Your task to perform on an android device: What's the latest news in space? Image 0: 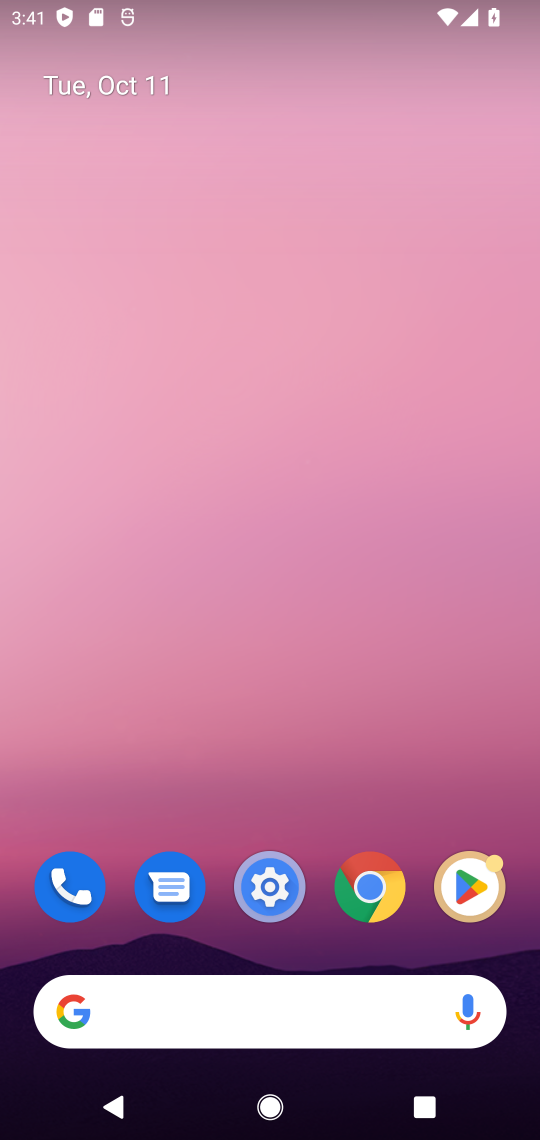
Step 0: click (270, 1006)
Your task to perform on an android device: What's the latest news in space? Image 1: 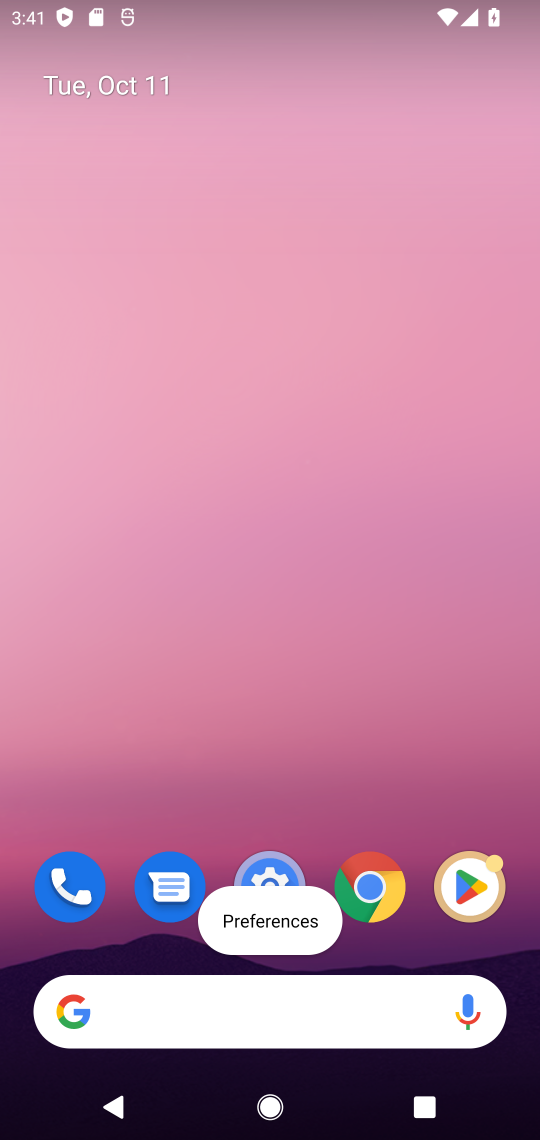
Step 1: click (142, 1012)
Your task to perform on an android device: What's the latest news in space? Image 2: 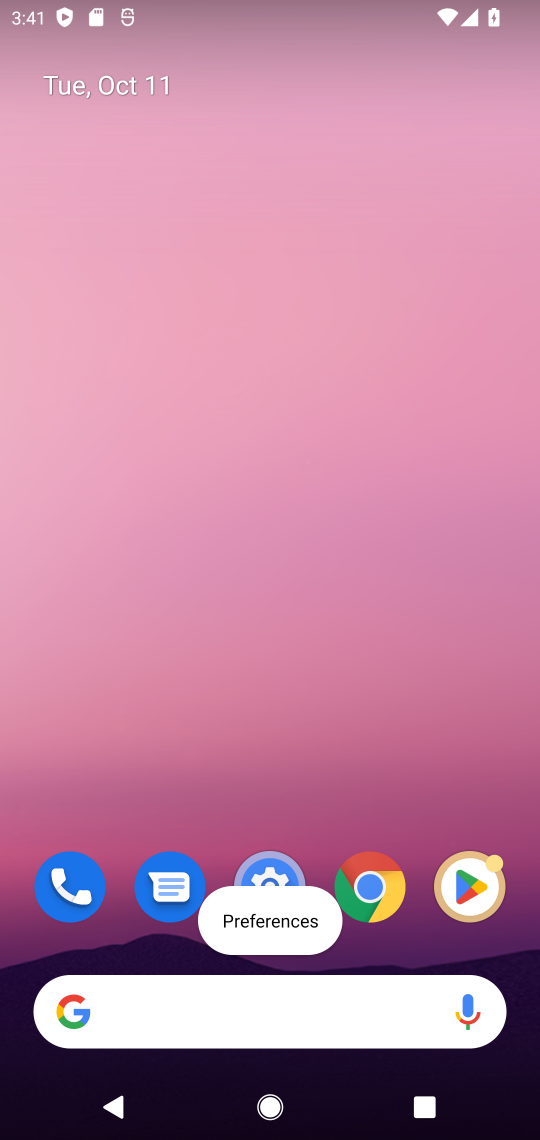
Step 2: click (207, 1002)
Your task to perform on an android device: What's the latest news in space? Image 3: 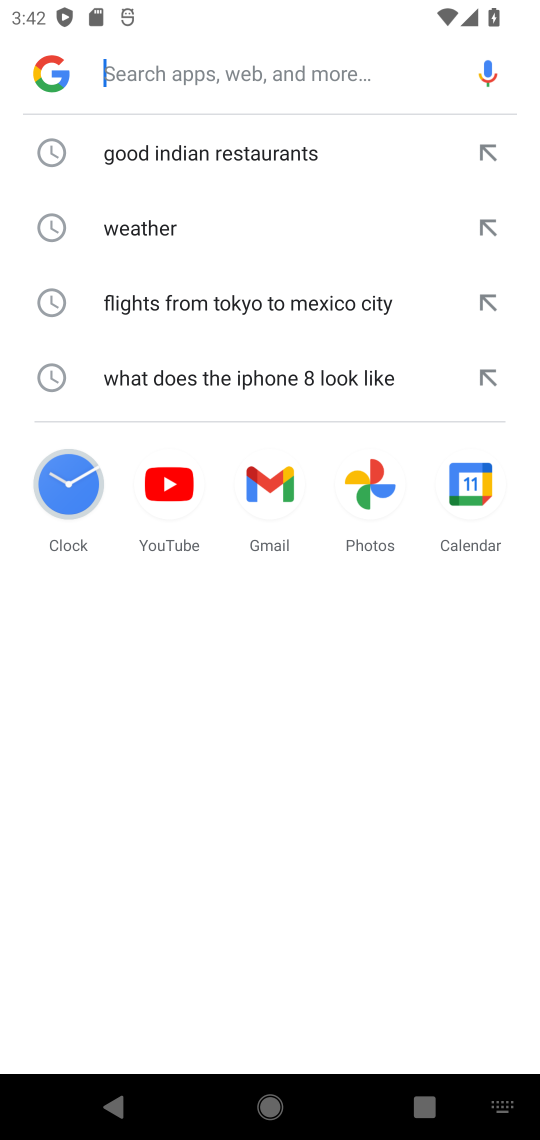
Step 3: click (143, 82)
Your task to perform on an android device: What's the latest news in space? Image 4: 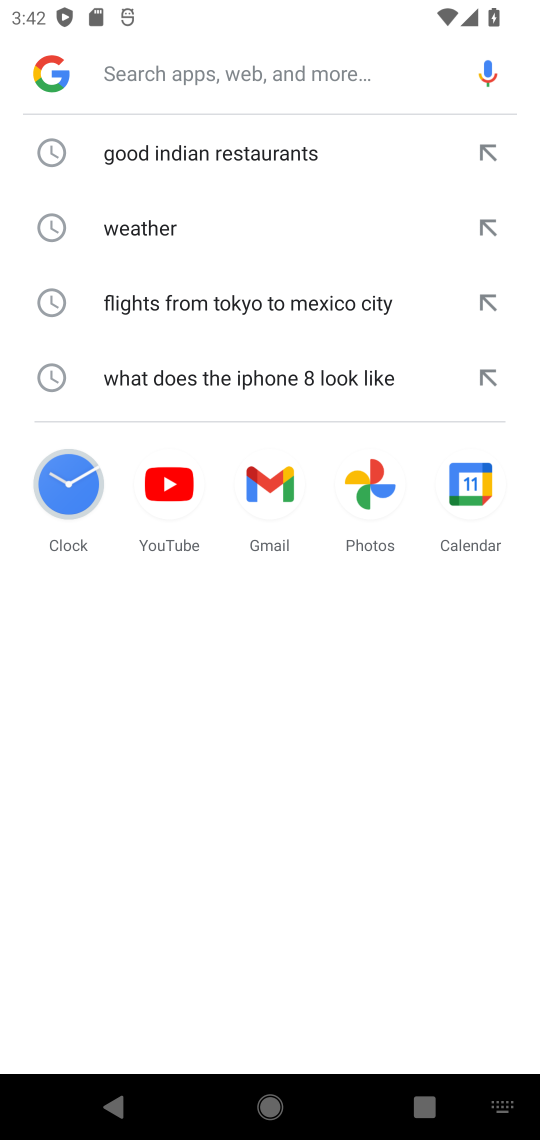
Step 4: type "latest space news"
Your task to perform on an android device: What's the latest news in space? Image 5: 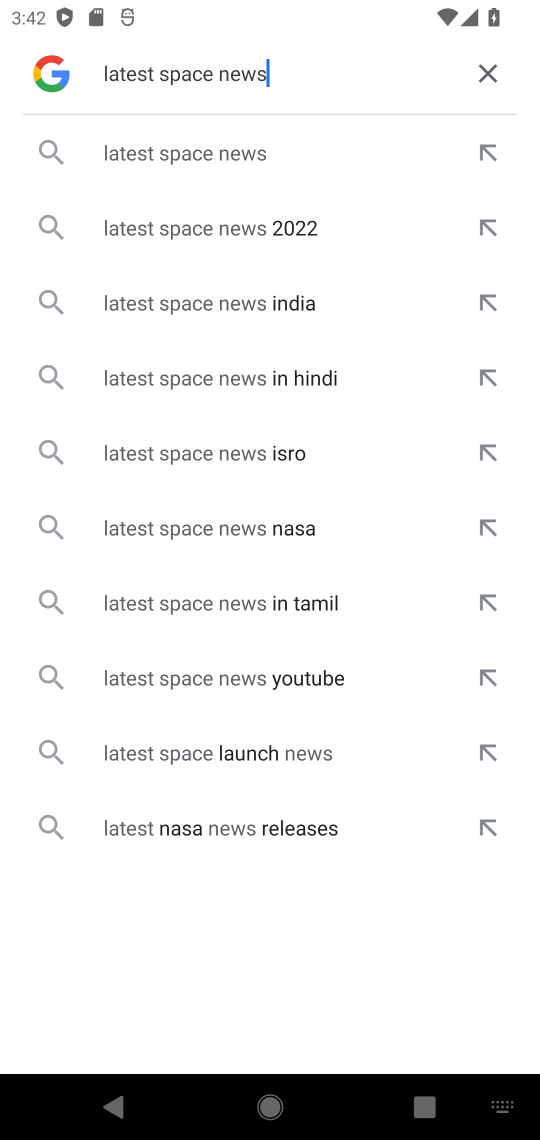
Step 5: click (238, 163)
Your task to perform on an android device: What's the latest news in space? Image 6: 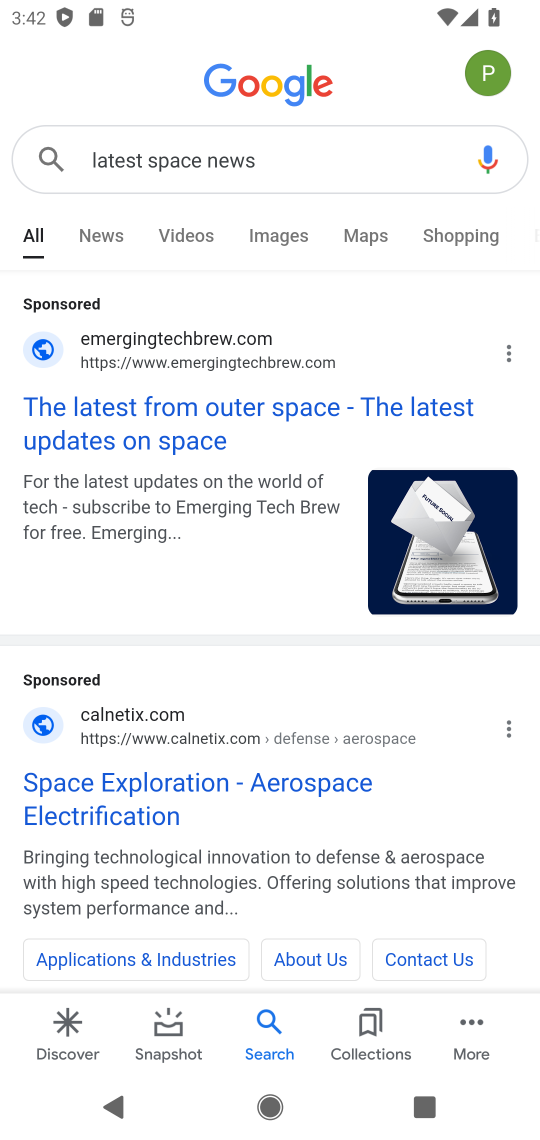
Step 6: click (110, 450)
Your task to perform on an android device: What's the latest news in space? Image 7: 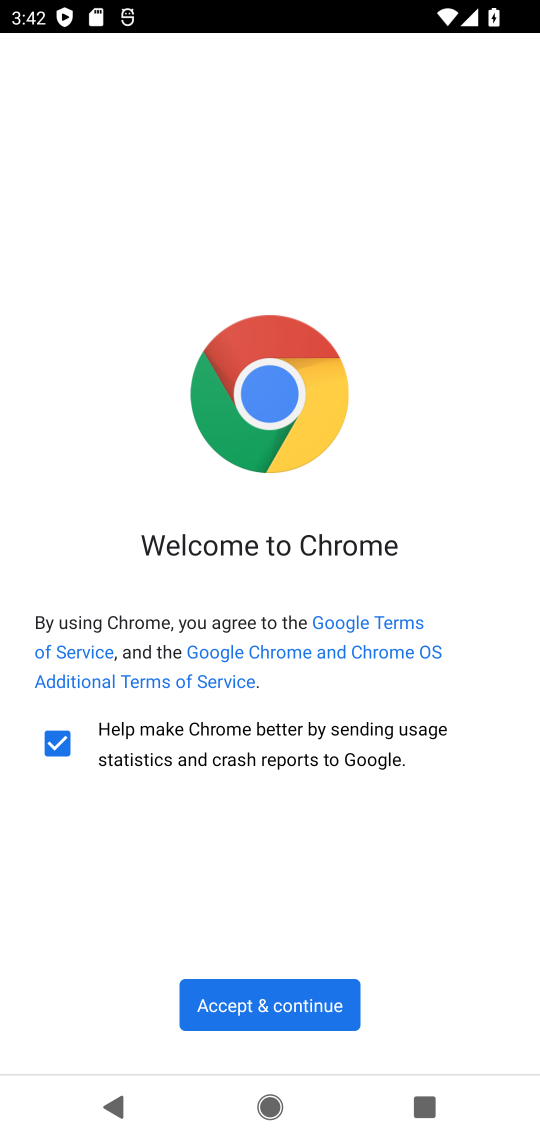
Step 7: click (257, 1011)
Your task to perform on an android device: What's the latest news in space? Image 8: 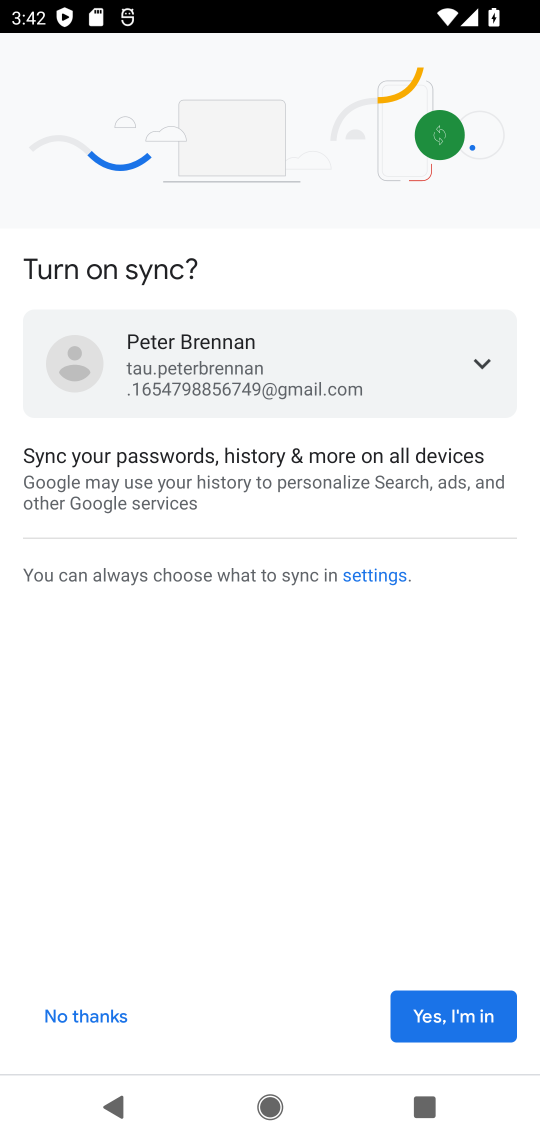
Step 8: click (75, 1014)
Your task to perform on an android device: What's the latest news in space? Image 9: 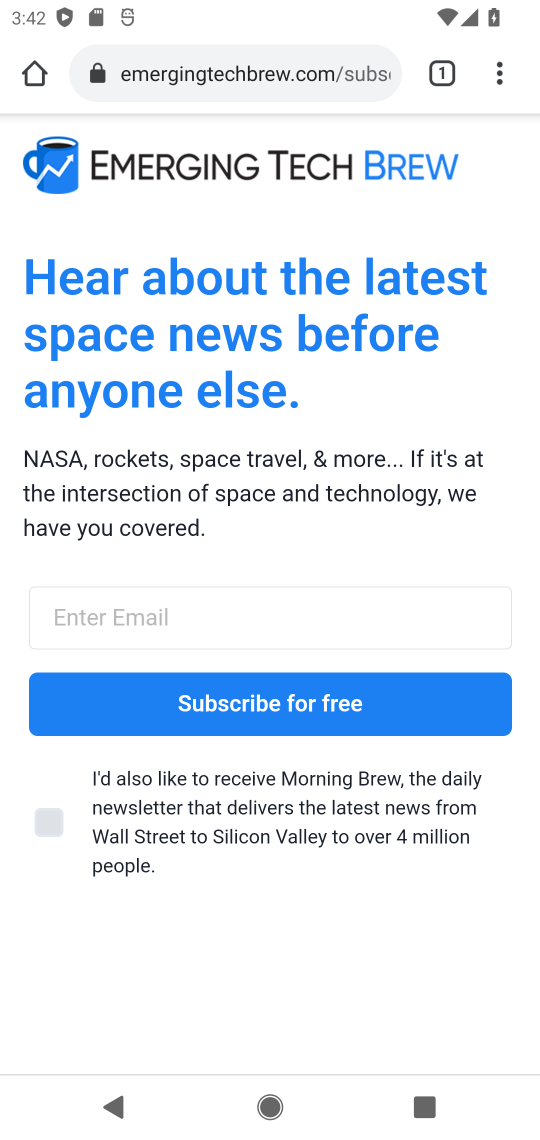
Step 9: drag from (255, 839) to (243, 388)
Your task to perform on an android device: What's the latest news in space? Image 10: 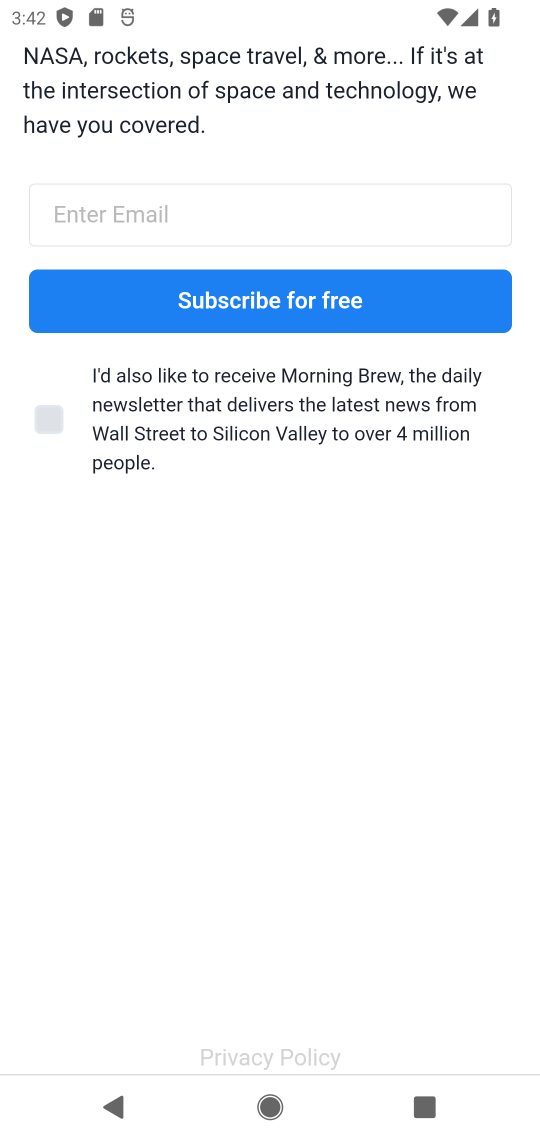
Step 10: drag from (270, 837) to (270, 203)
Your task to perform on an android device: What's the latest news in space? Image 11: 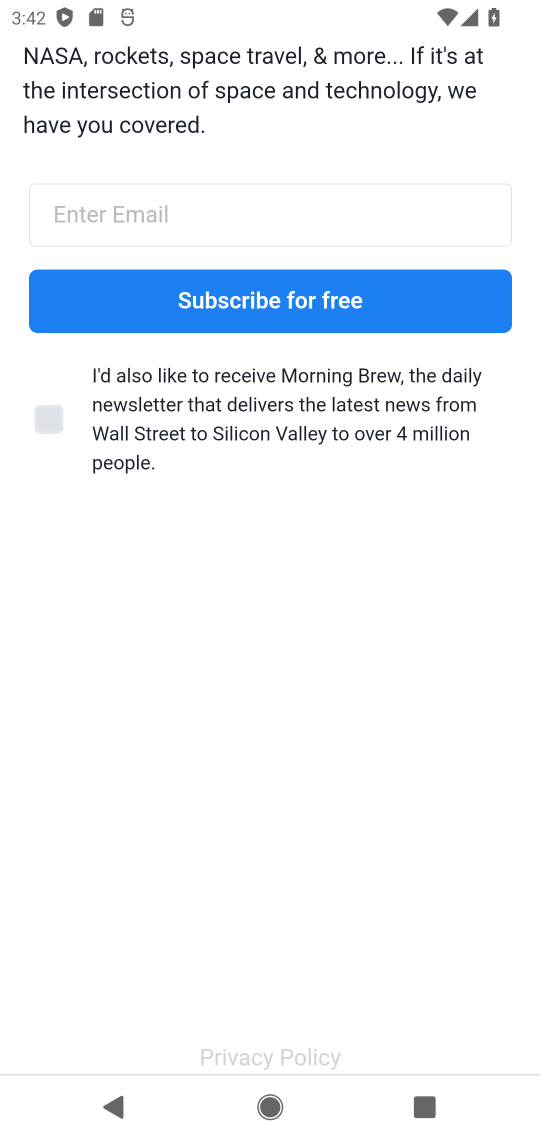
Step 11: drag from (224, 512) to (260, 1043)
Your task to perform on an android device: What's the latest news in space? Image 12: 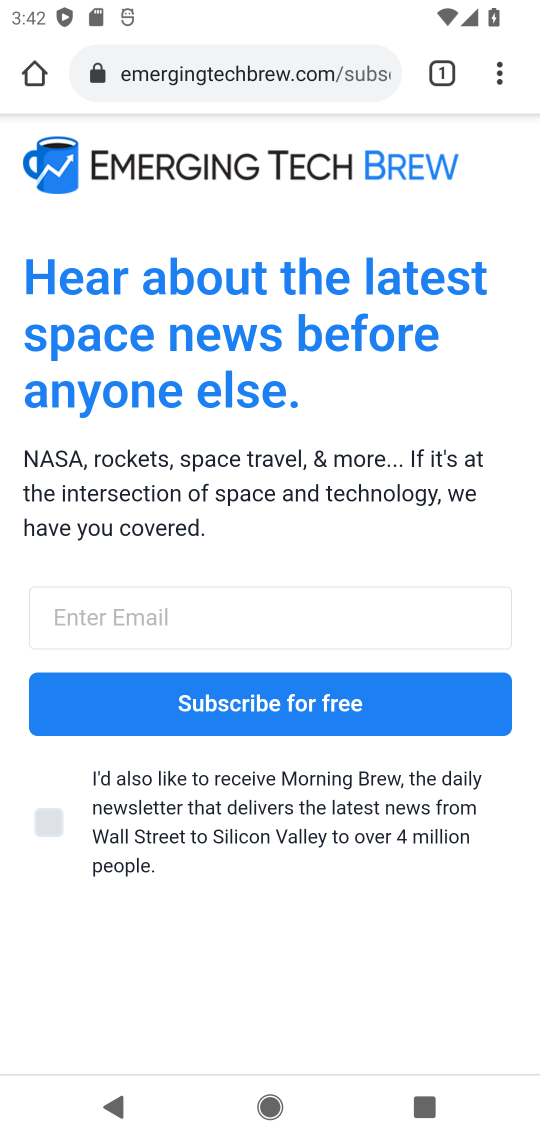
Step 12: press back button
Your task to perform on an android device: What's the latest news in space? Image 13: 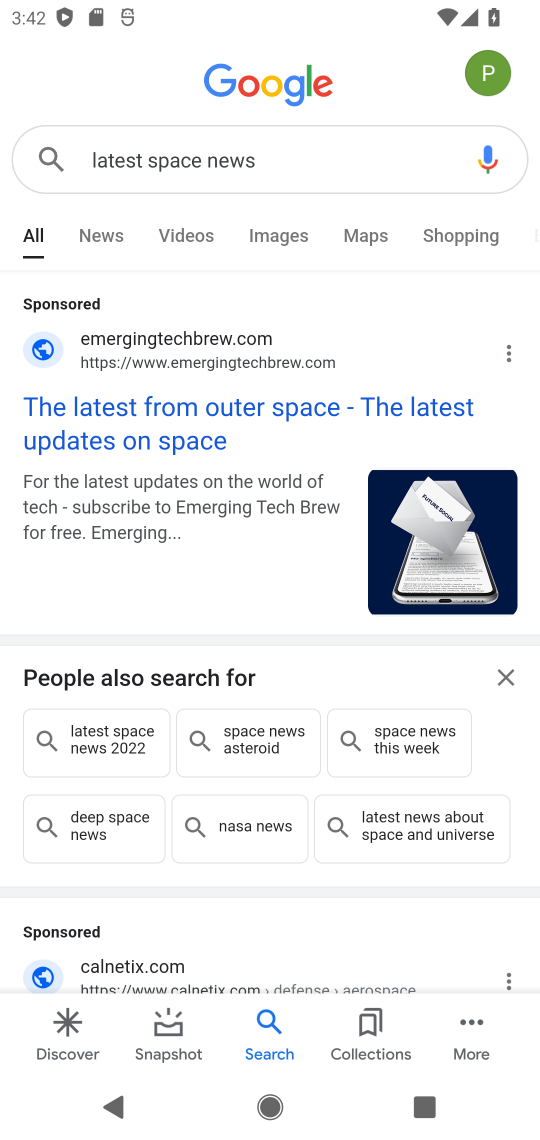
Step 13: click (101, 239)
Your task to perform on an android device: What's the latest news in space? Image 14: 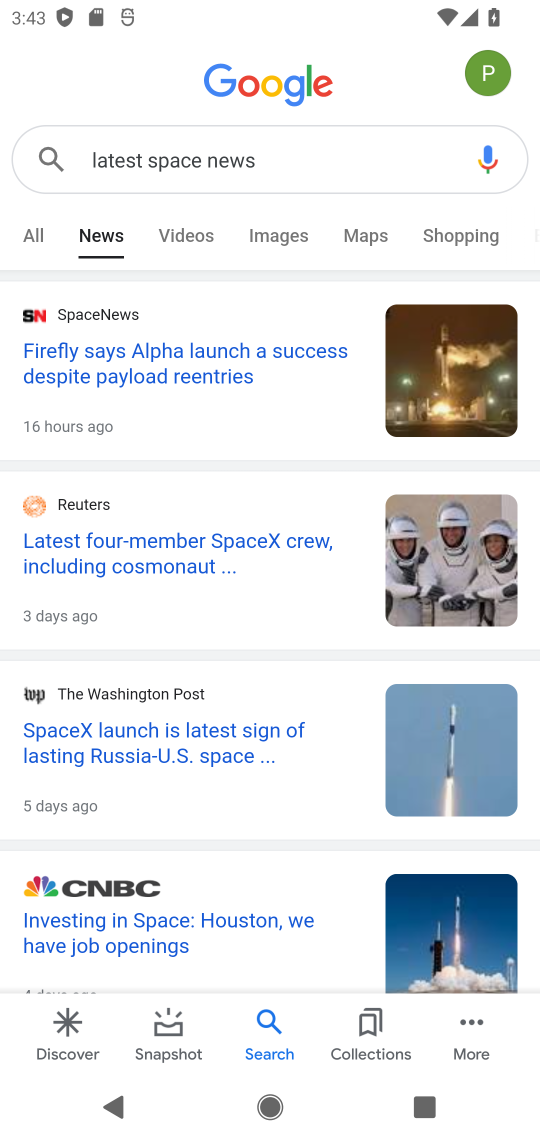
Step 14: click (125, 562)
Your task to perform on an android device: What's the latest news in space? Image 15: 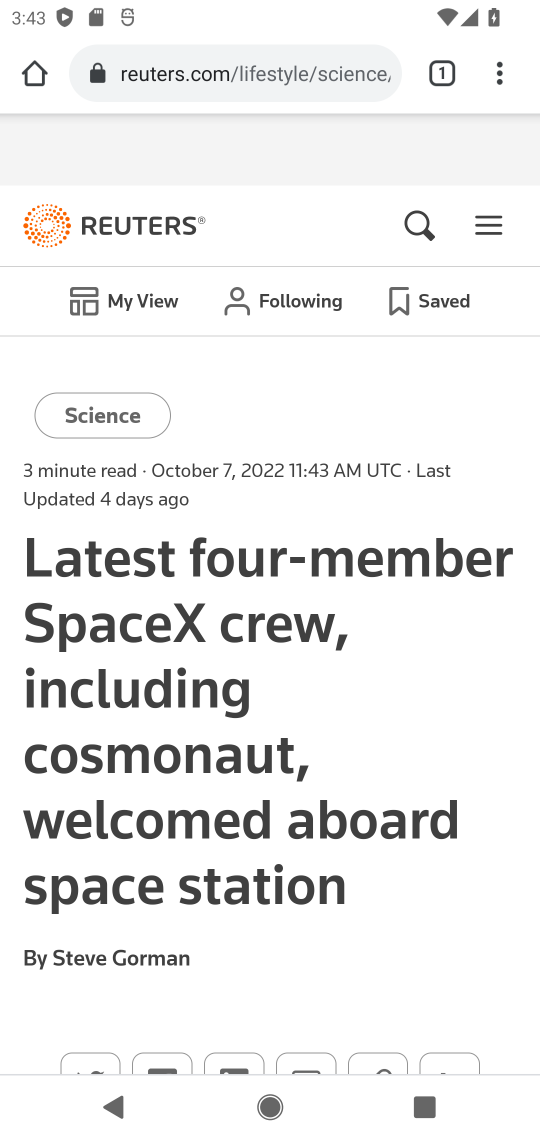
Step 15: task complete